Your task to perform on an android device: star an email in the gmail app Image 0: 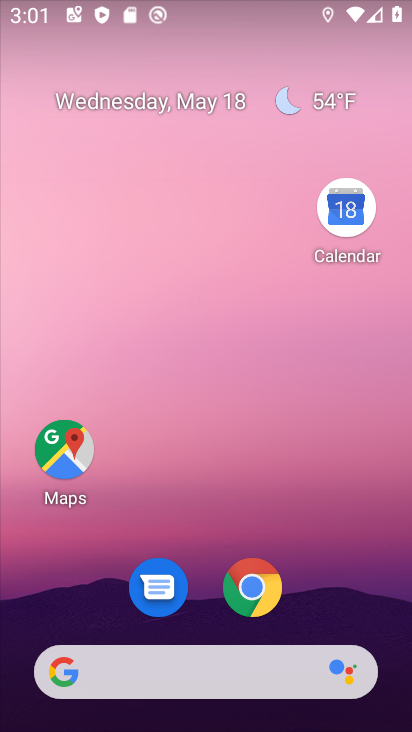
Step 0: drag from (218, 593) to (168, 243)
Your task to perform on an android device: star an email in the gmail app Image 1: 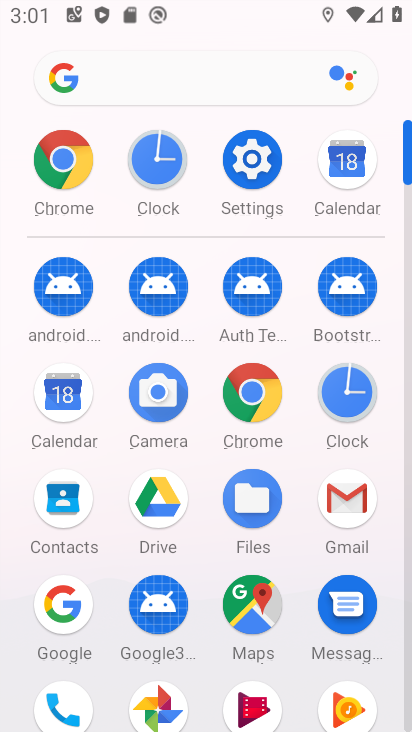
Step 1: click (360, 499)
Your task to perform on an android device: star an email in the gmail app Image 2: 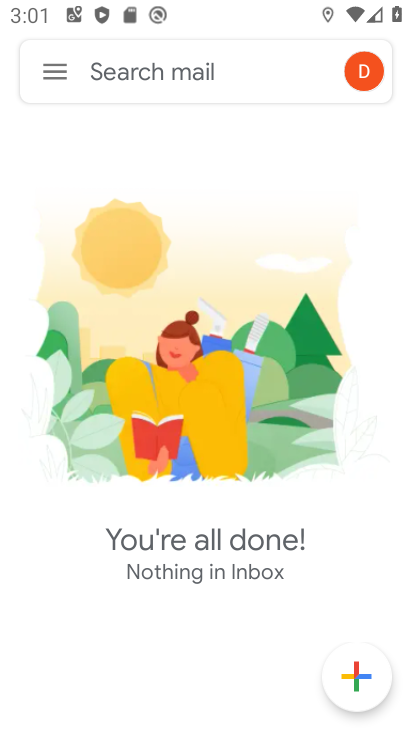
Step 2: click (46, 68)
Your task to perform on an android device: star an email in the gmail app Image 3: 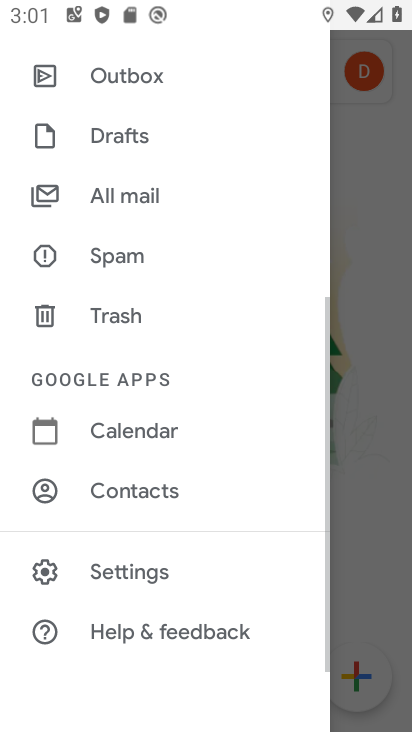
Step 3: drag from (138, 155) to (159, 561)
Your task to perform on an android device: star an email in the gmail app Image 4: 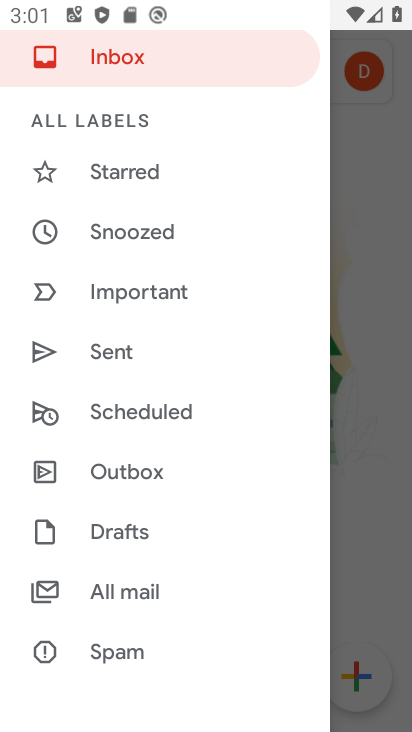
Step 4: click (137, 176)
Your task to perform on an android device: star an email in the gmail app Image 5: 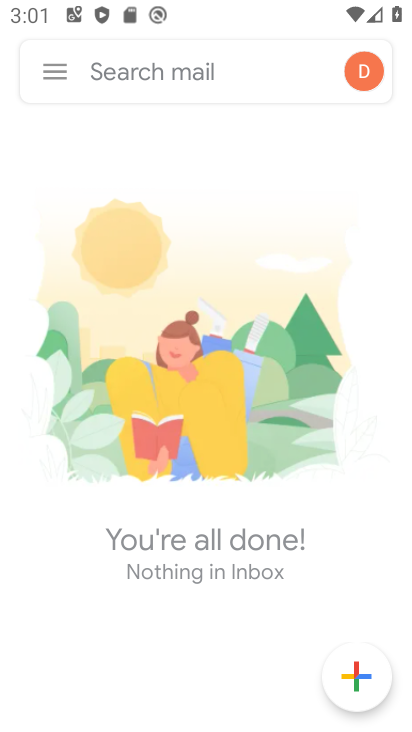
Step 5: task complete